Your task to perform on an android device: empty trash in the gmail app Image 0: 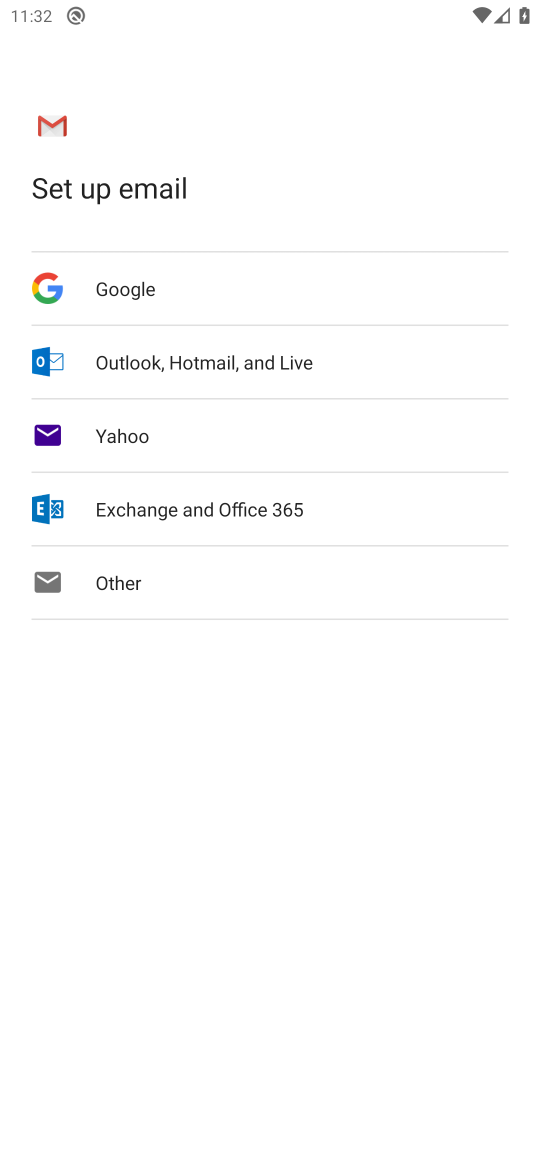
Step 0: press home button
Your task to perform on an android device: empty trash in the gmail app Image 1: 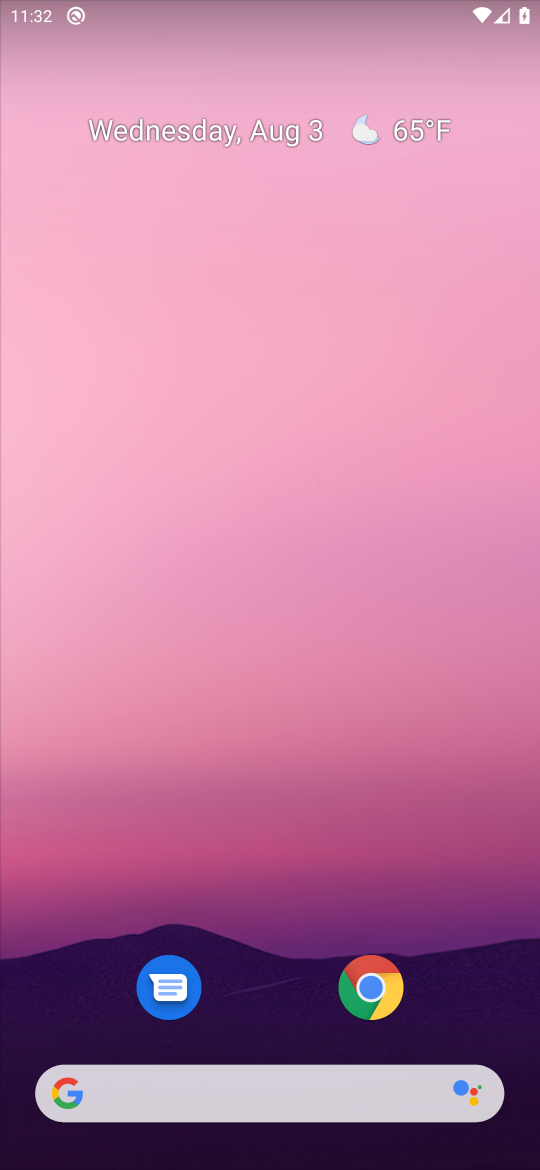
Step 1: drag from (234, 1068) to (179, 551)
Your task to perform on an android device: empty trash in the gmail app Image 2: 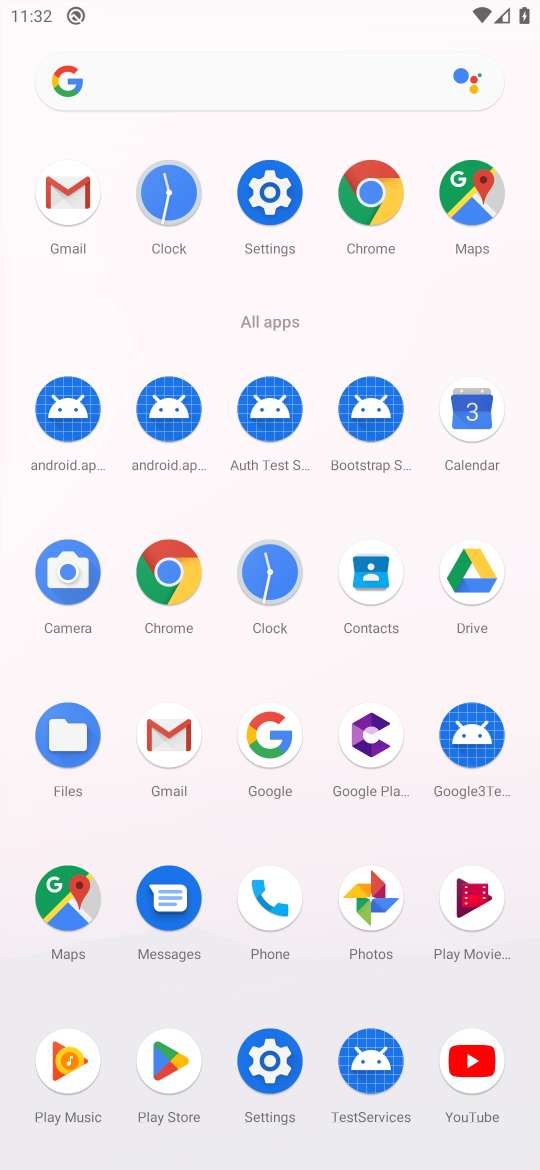
Step 2: click (62, 206)
Your task to perform on an android device: empty trash in the gmail app Image 3: 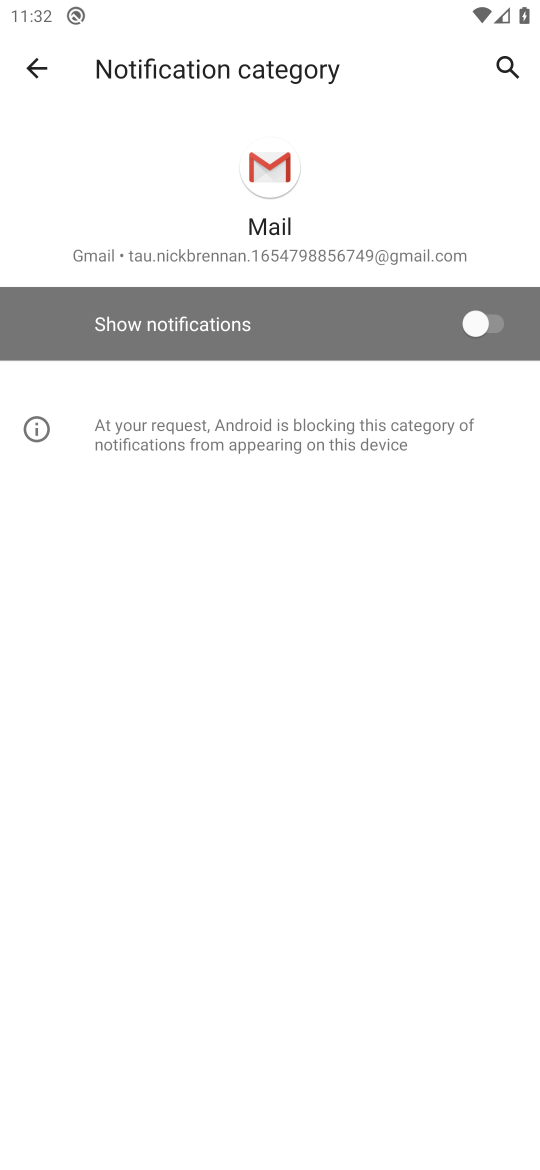
Step 3: click (35, 54)
Your task to perform on an android device: empty trash in the gmail app Image 4: 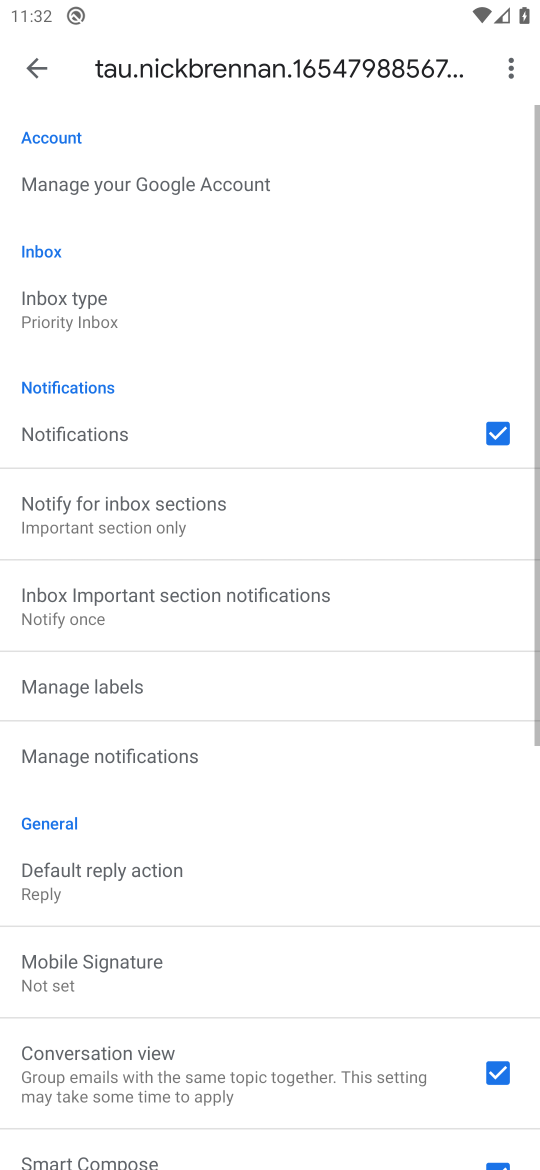
Step 4: click (33, 59)
Your task to perform on an android device: empty trash in the gmail app Image 5: 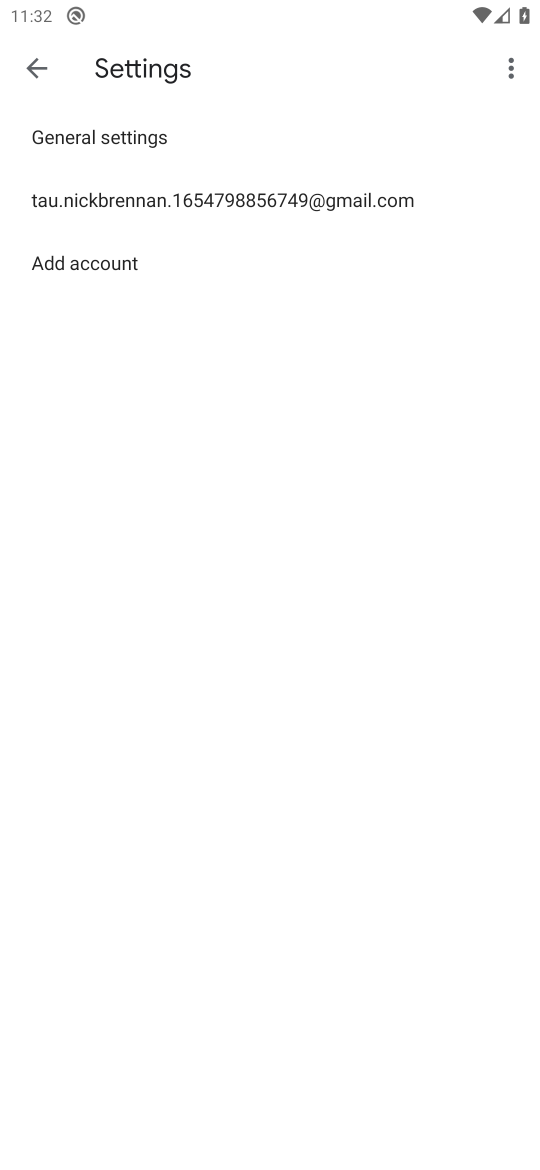
Step 5: click (33, 61)
Your task to perform on an android device: empty trash in the gmail app Image 6: 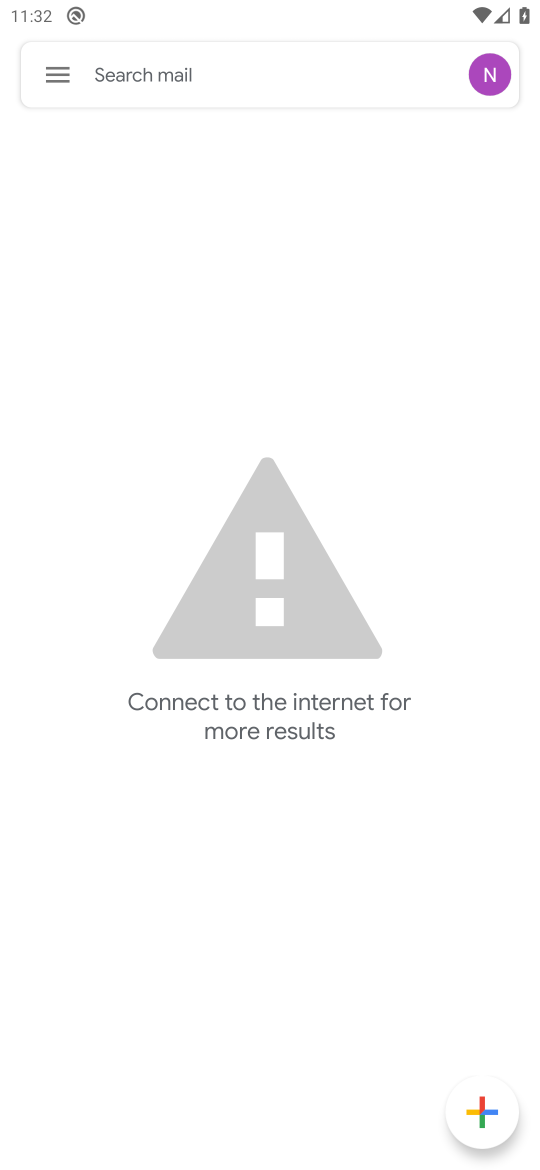
Step 6: click (51, 70)
Your task to perform on an android device: empty trash in the gmail app Image 7: 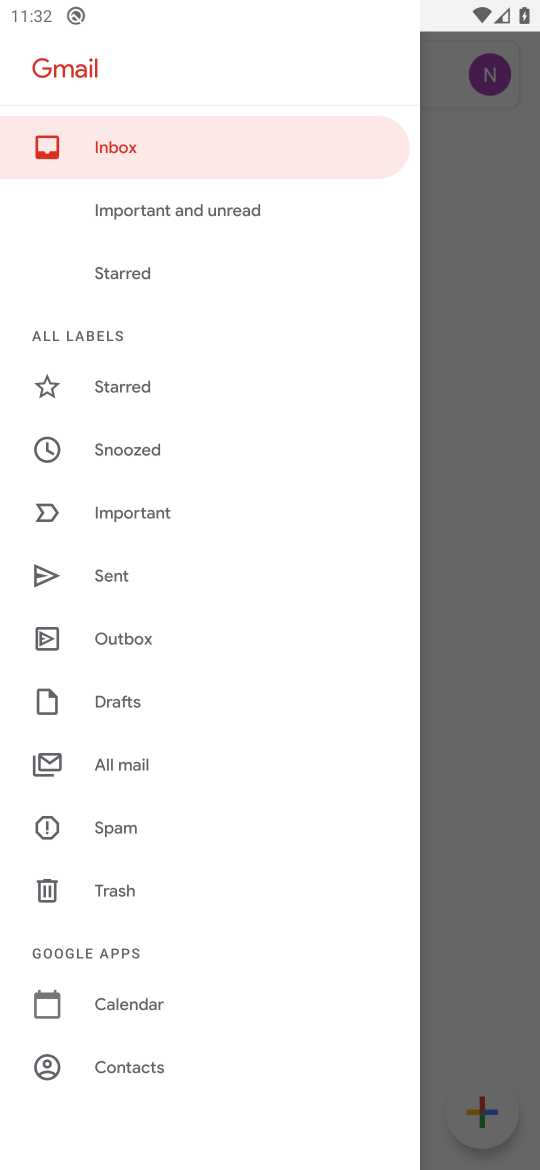
Step 7: click (99, 901)
Your task to perform on an android device: empty trash in the gmail app Image 8: 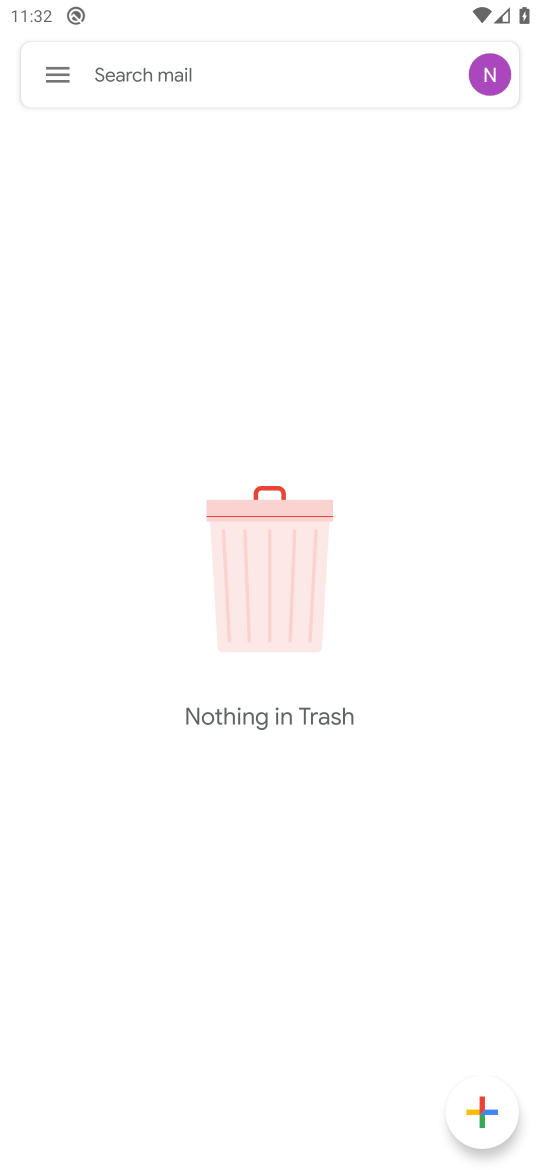
Step 8: task complete